Your task to perform on an android device: Search for pizza restaurants on Maps Image 0: 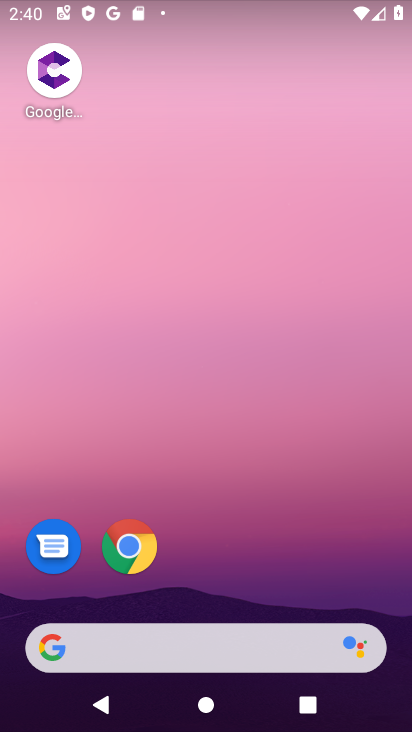
Step 0: drag from (402, 648) to (368, 444)
Your task to perform on an android device: Search for pizza restaurants on Maps Image 1: 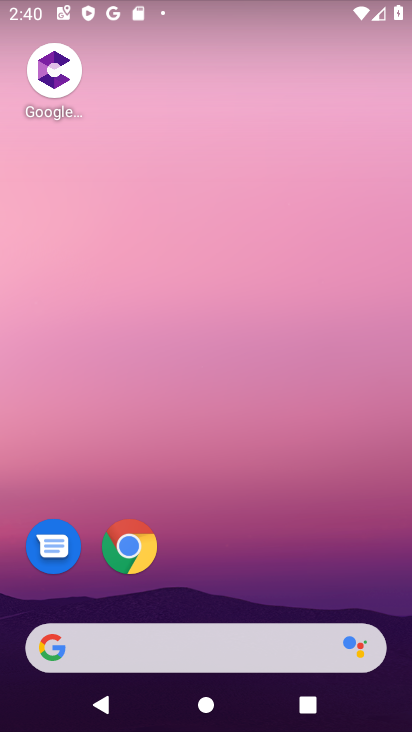
Step 1: drag from (401, 666) to (315, 167)
Your task to perform on an android device: Search for pizza restaurants on Maps Image 2: 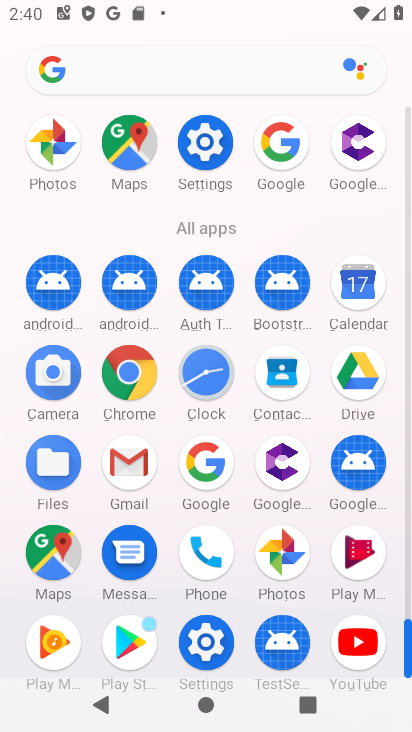
Step 2: click (51, 549)
Your task to perform on an android device: Search for pizza restaurants on Maps Image 3: 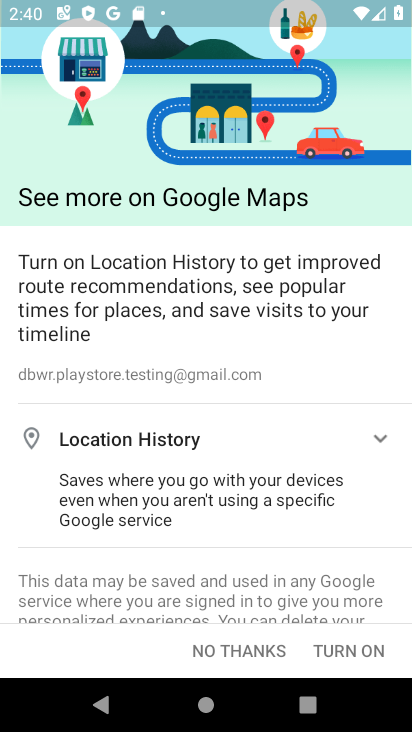
Step 3: click (328, 649)
Your task to perform on an android device: Search for pizza restaurants on Maps Image 4: 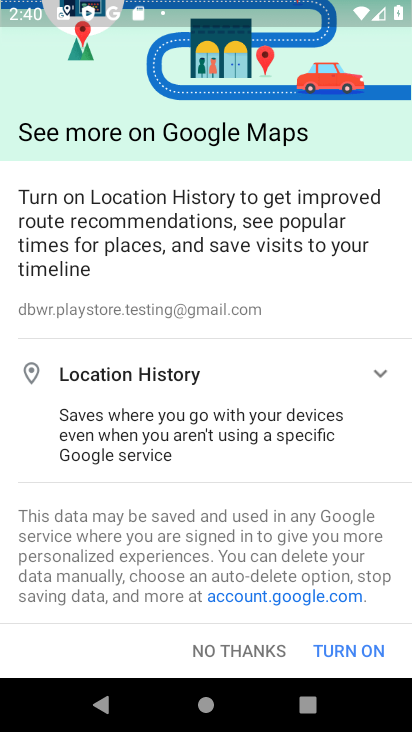
Step 4: click (342, 650)
Your task to perform on an android device: Search for pizza restaurants on Maps Image 5: 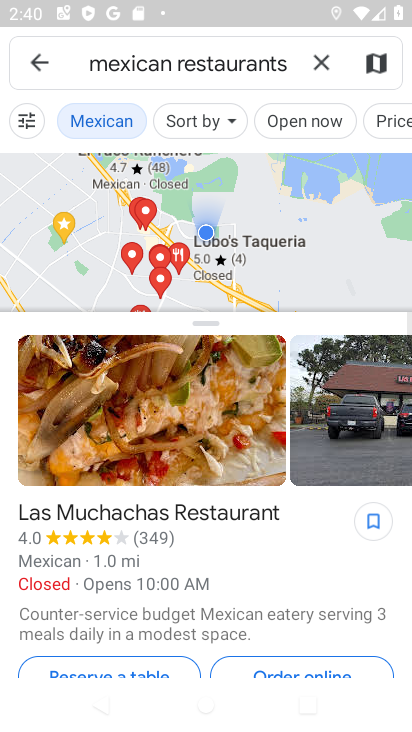
Step 5: click (315, 63)
Your task to perform on an android device: Search for pizza restaurants on Maps Image 6: 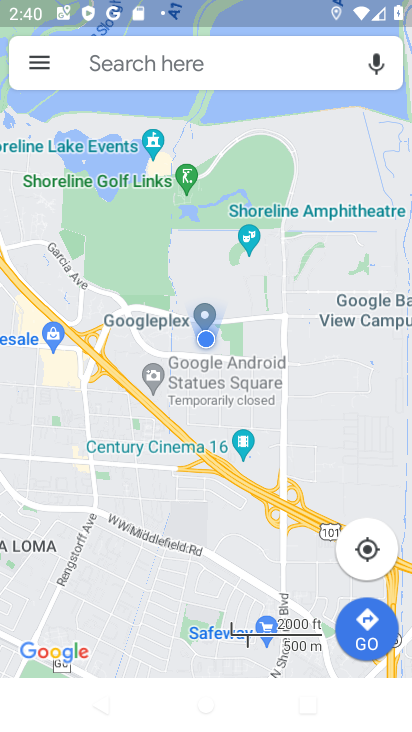
Step 6: click (138, 68)
Your task to perform on an android device: Search for pizza restaurants on Maps Image 7: 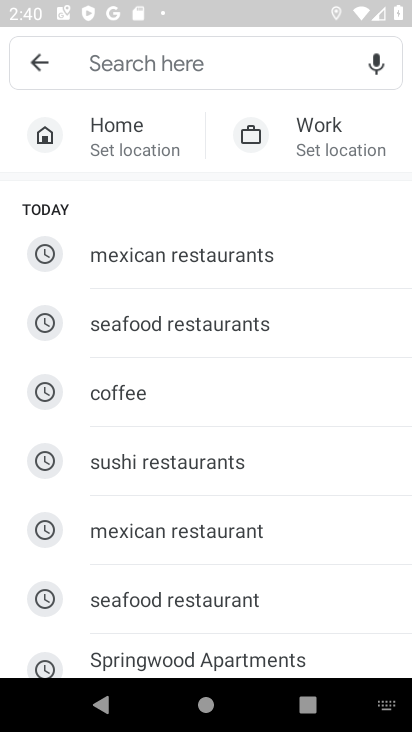
Step 7: type "pizza restaurants"
Your task to perform on an android device: Search for pizza restaurants on Maps Image 8: 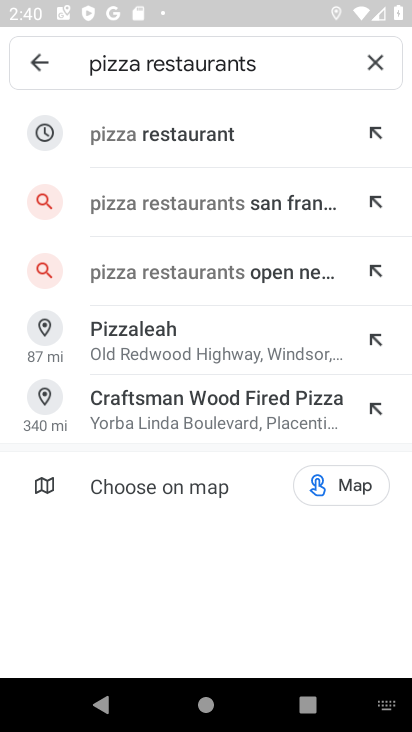
Step 8: click (188, 136)
Your task to perform on an android device: Search for pizza restaurants on Maps Image 9: 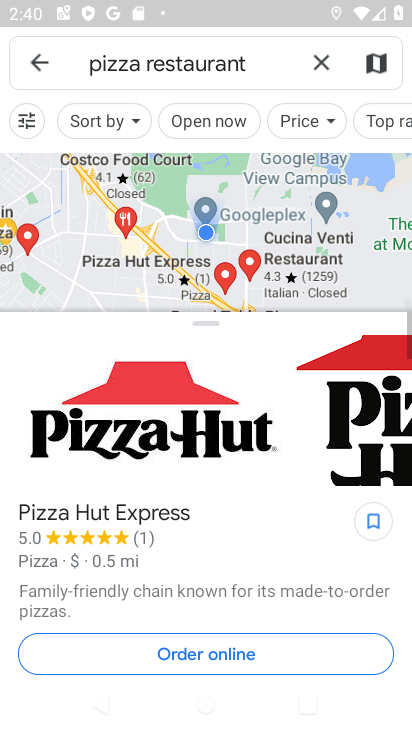
Step 9: task complete